Your task to perform on an android device: read, delete, or share a saved page in the chrome app Image 0: 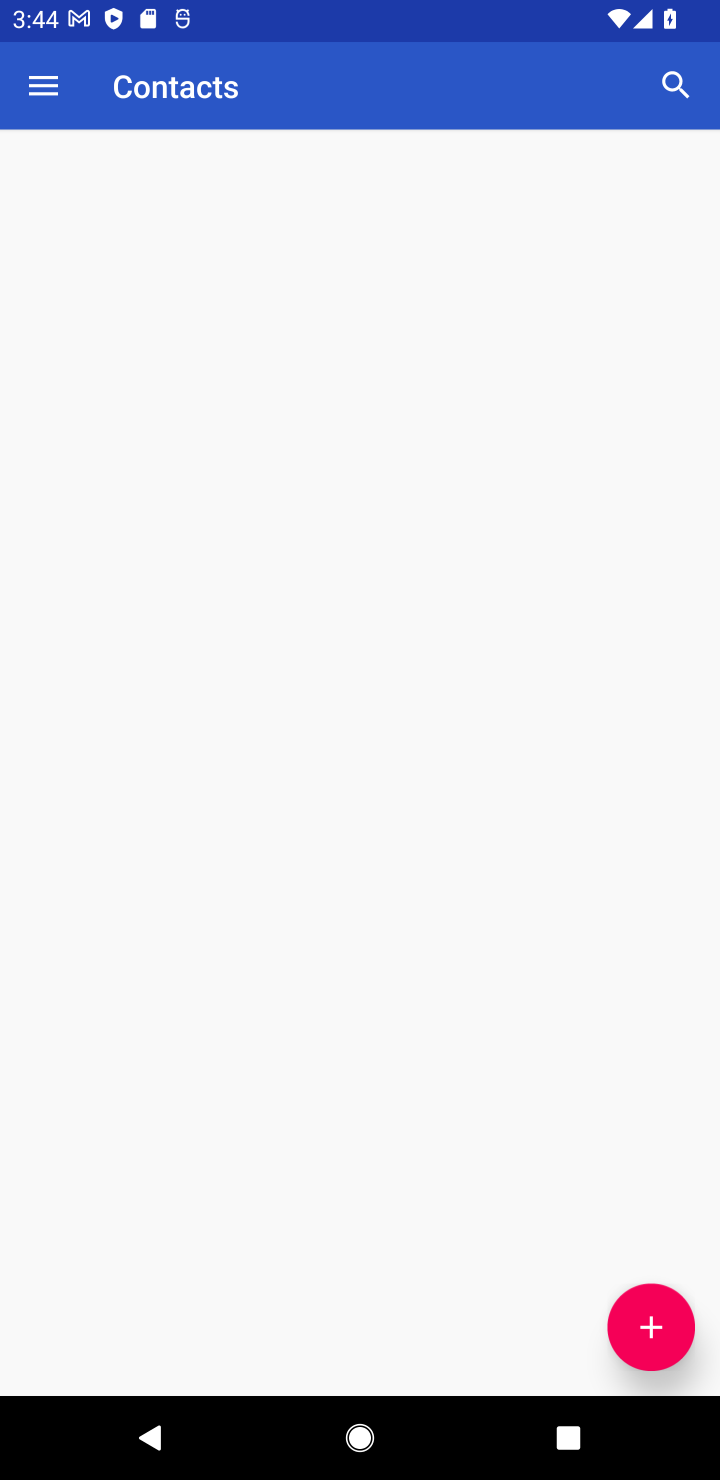
Step 0: press home button
Your task to perform on an android device: read, delete, or share a saved page in the chrome app Image 1: 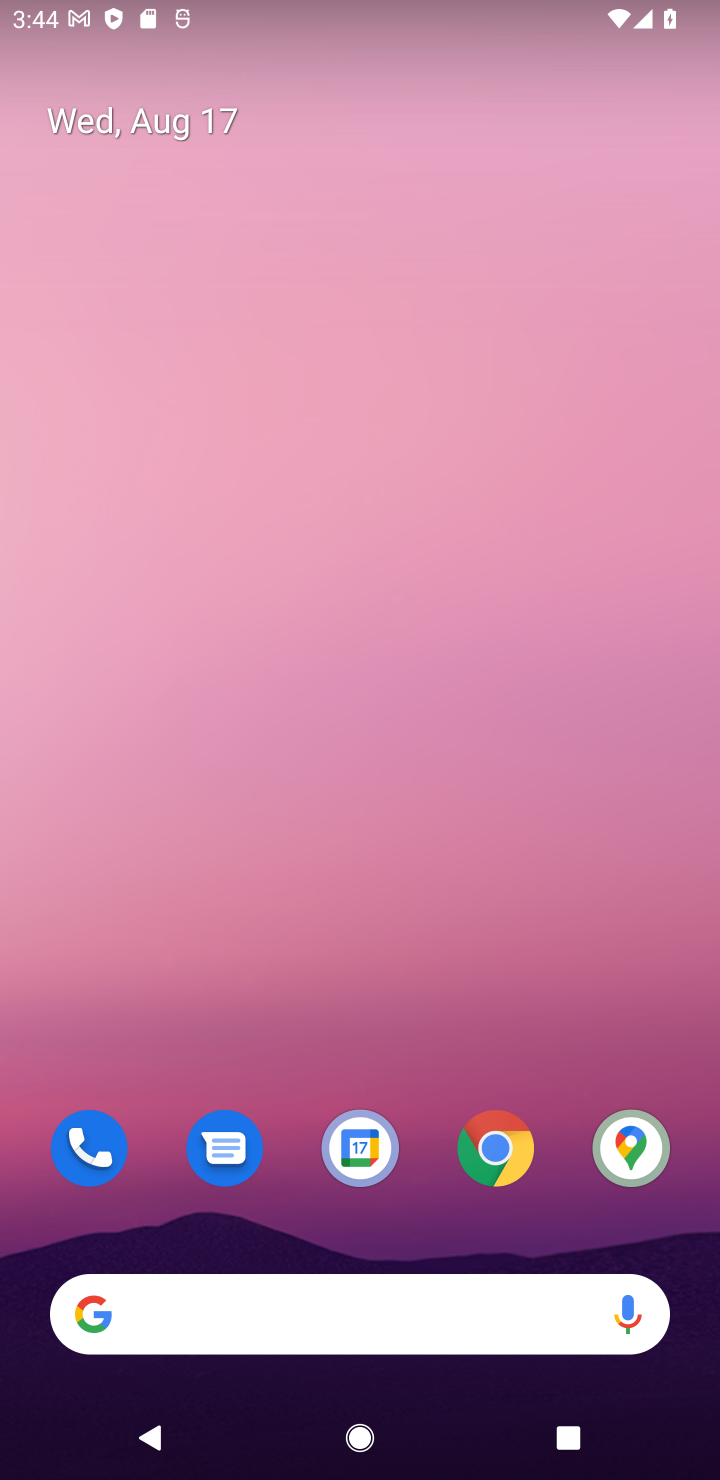
Step 1: click (531, 1147)
Your task to perform on an android device: read, delete, or share a saved page in the chrome app Image 2: 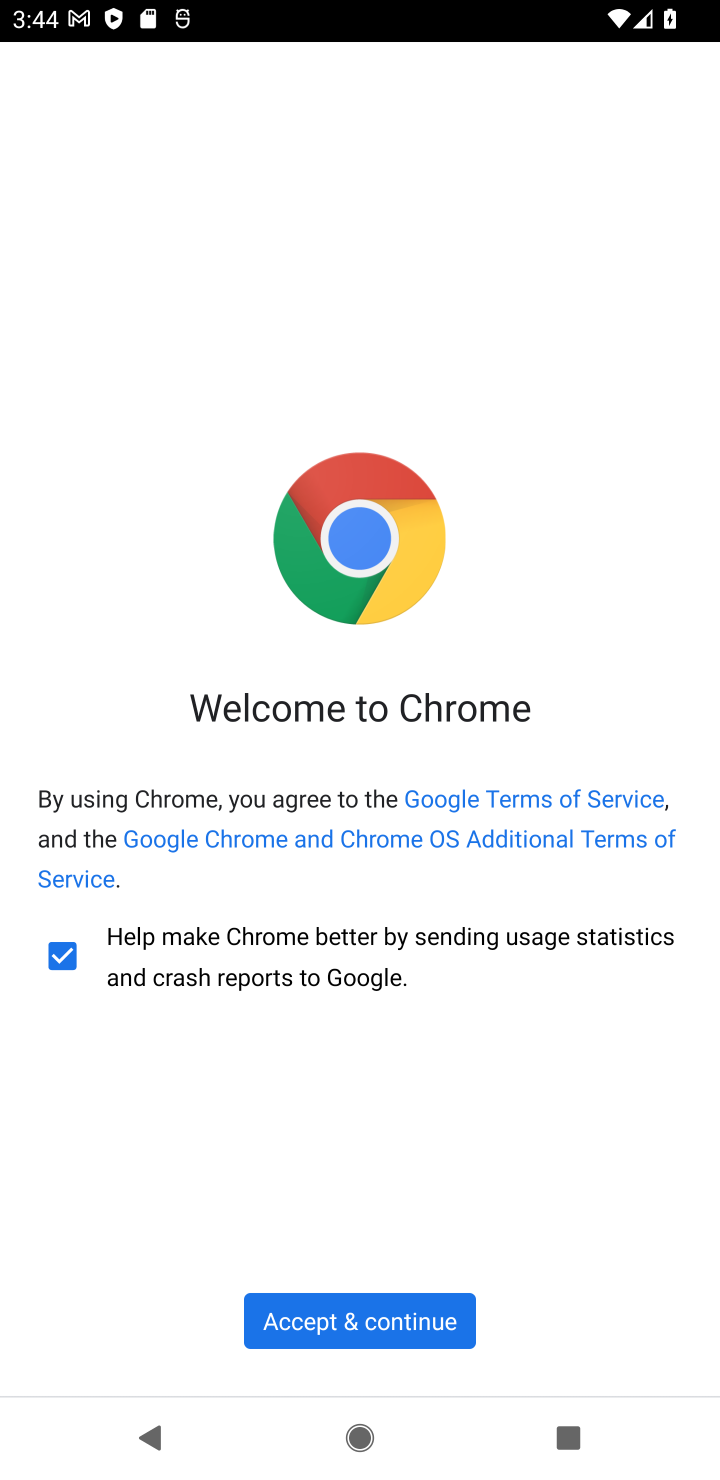
Step 2: click (352, 1311)
Your task to perform on an android device: read, delete, or share a saved page in the chrome app Image 3: 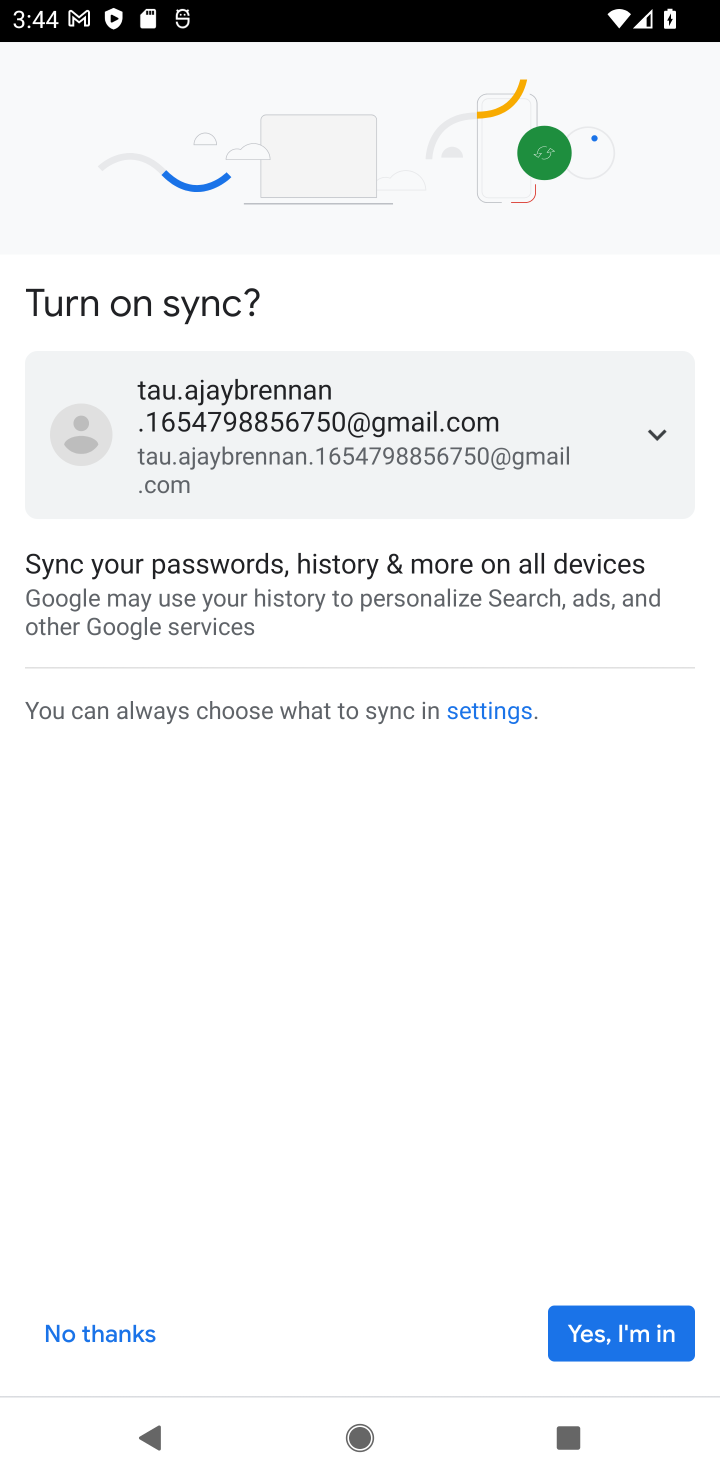
Step 3: click (636, 1332)
Your task to perform on an android device: read, delete, or share a saved page in the chrome app Image 4: 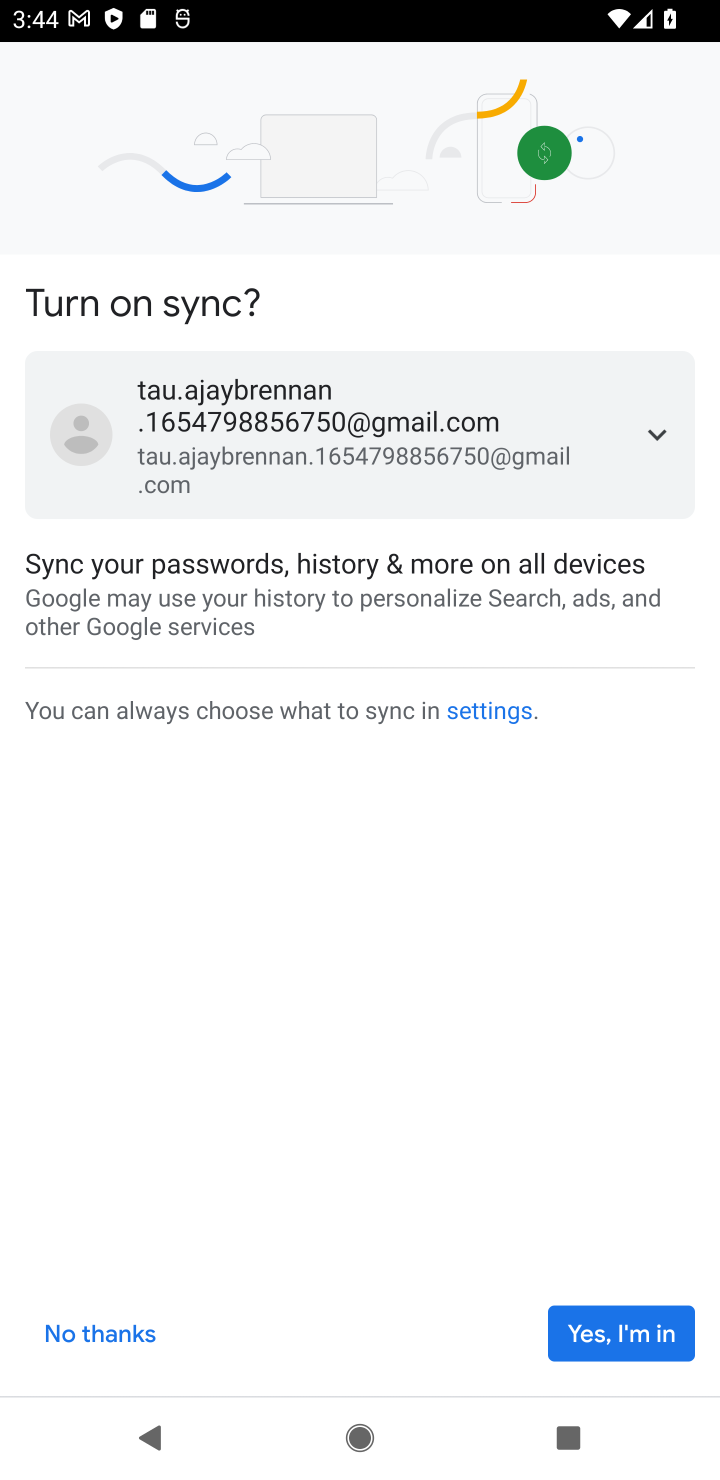
Step 4: click (636, 1332)
Your task to perform on an android device: read, delete, or share a saved page in the chrome app Image 5: 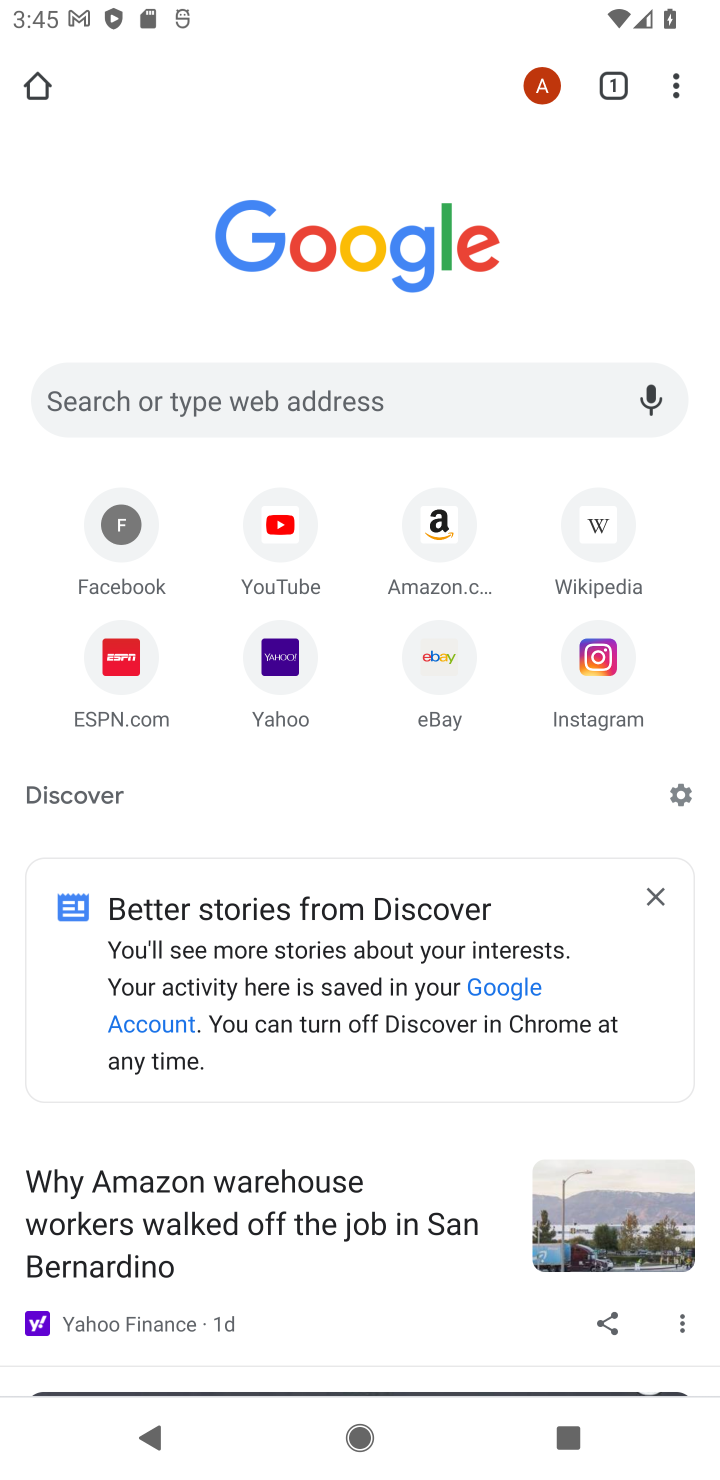
Step 5: click (681, 82)
Your task to perform on an android device: read, delete, or share a saved page in the chrome app Image 6: 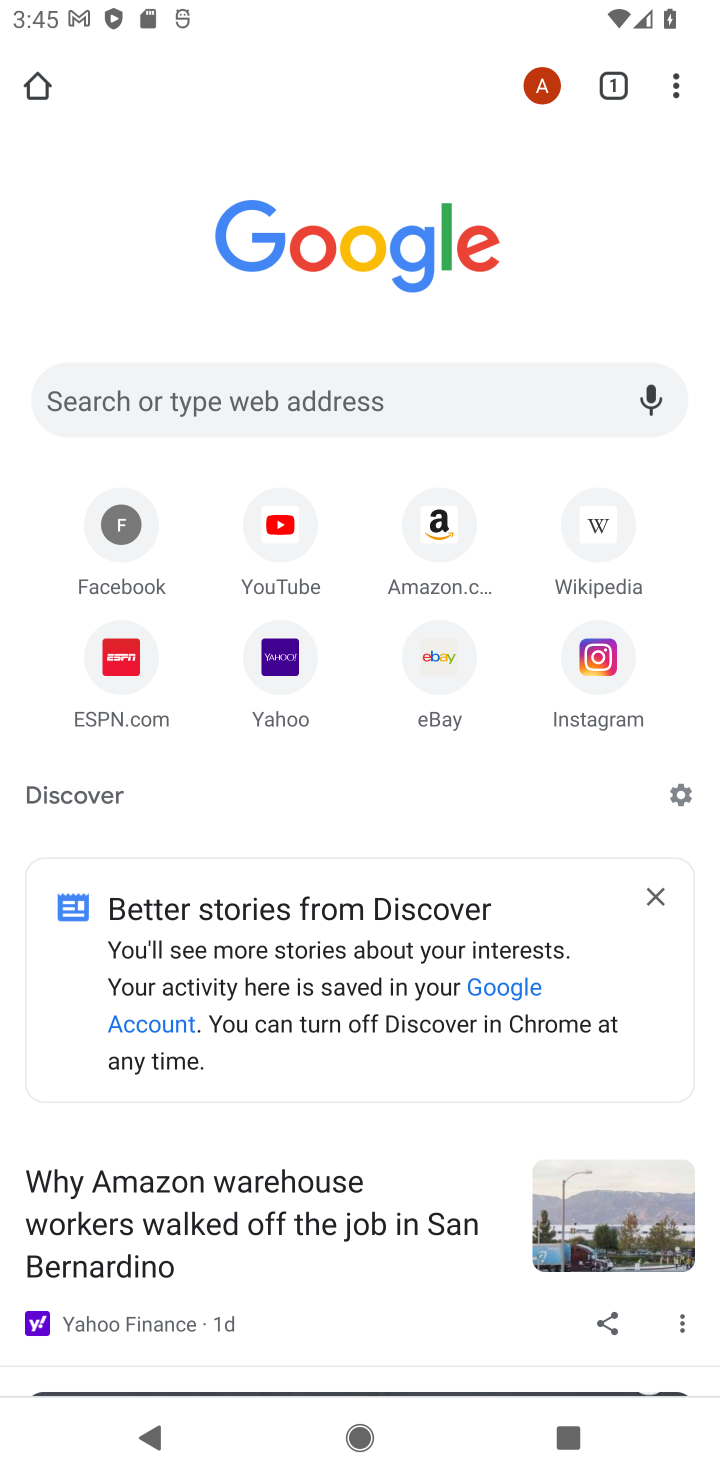
Step 6: click (681, 82)
Your task to perform on an android device: read, delete, or share a saved page in the chrome app Image 7: 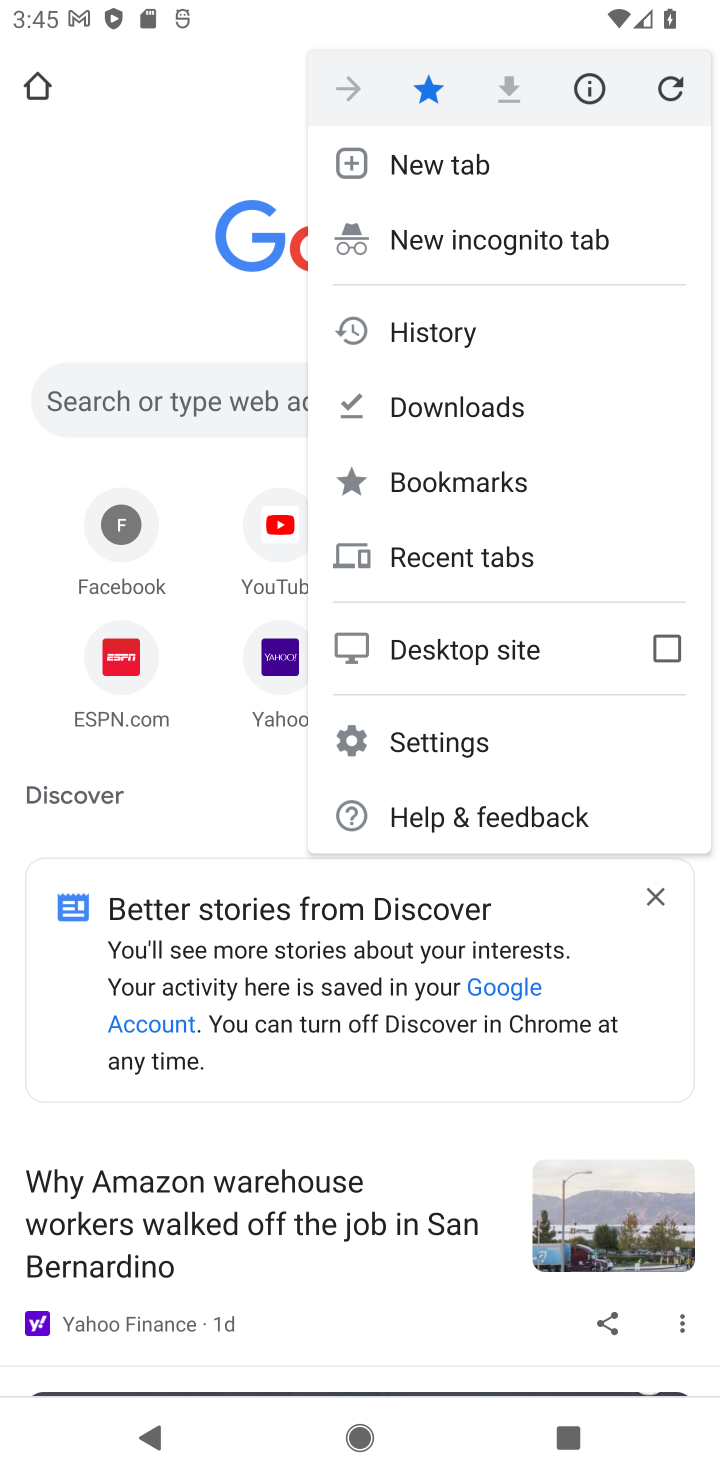
Step 7: click (452, 416)
Your task to perform on an android device: read, delete, or share a saved page in the chrome app Image 8: 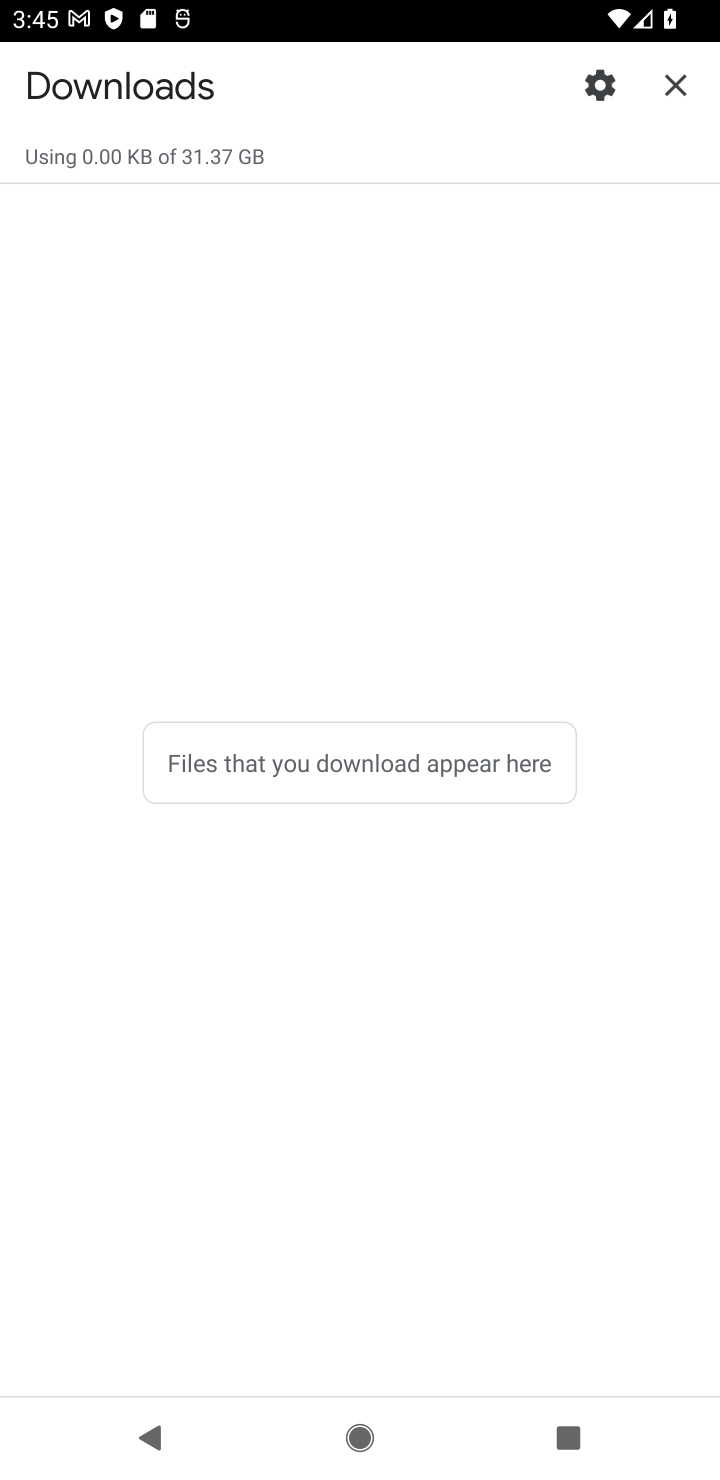
Step 8: task complete